Your task to perform on an android device: Open Yahoo.com Image 0: 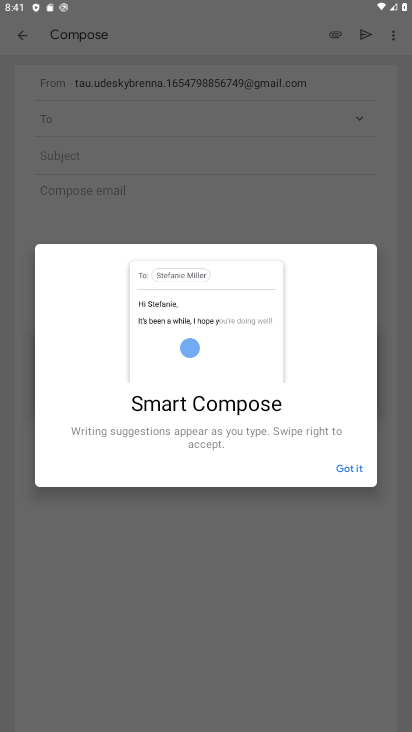
Step 0: press home button
Your task to perform on an android device: Open Yahoo.com Image 1: 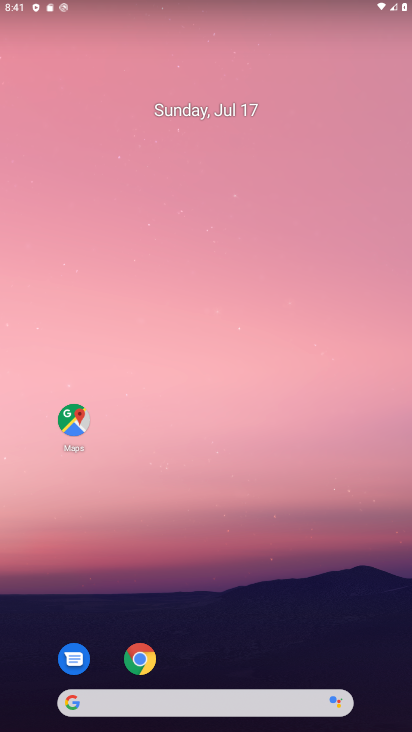
Step 1: click (138, 659)
Your task to perform on an android device: Open Yahoo.com Image 2: 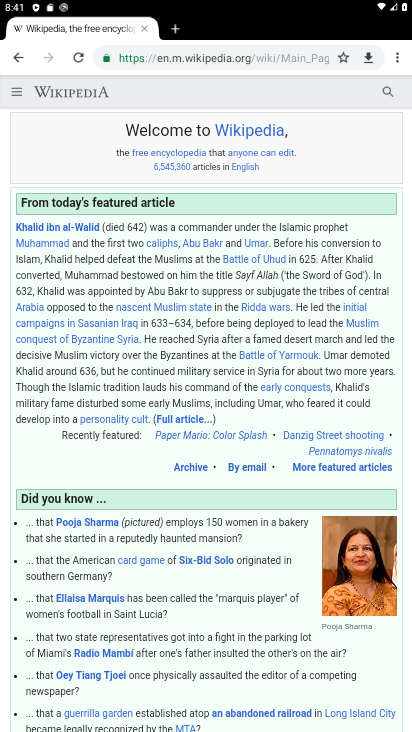
Step 2: click (255, 58)
Your task to perform on an android device: Open Yahoo.com Image 3: 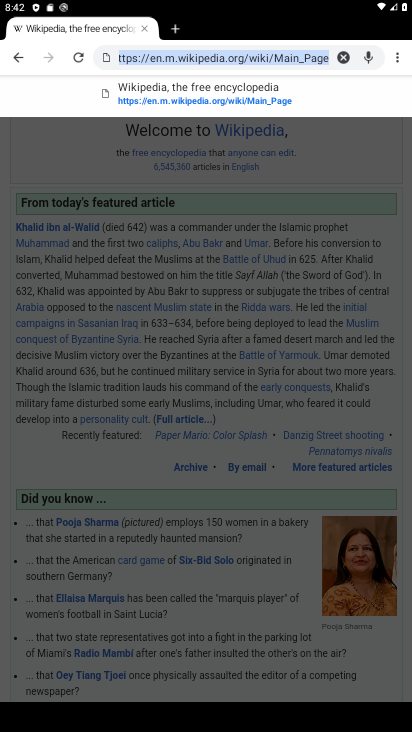
Step 3: type "Yahoo.com"
Your task to perform on an android device: Open Yahoo.com Image 4: 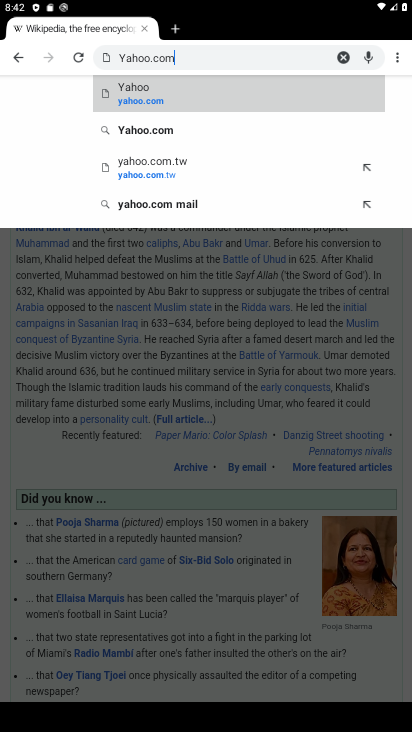
Step 4: click (161, 136)
Your task to perform on an android device: Open Yahoo.com Image 5: 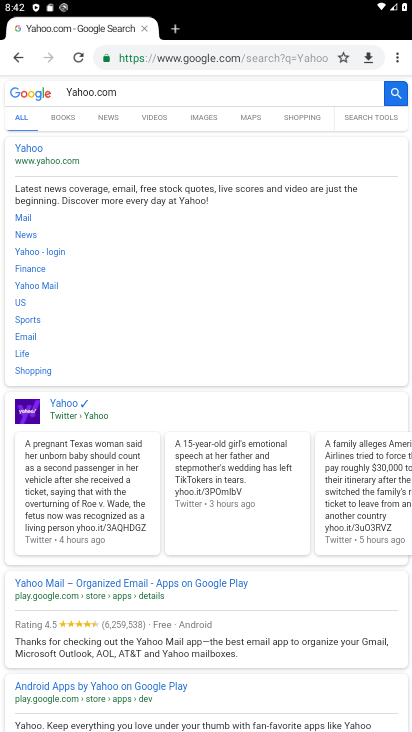
Step 5: click (39, 164)
Your task to perform on an android device: Open Yahoo.com Image 6: 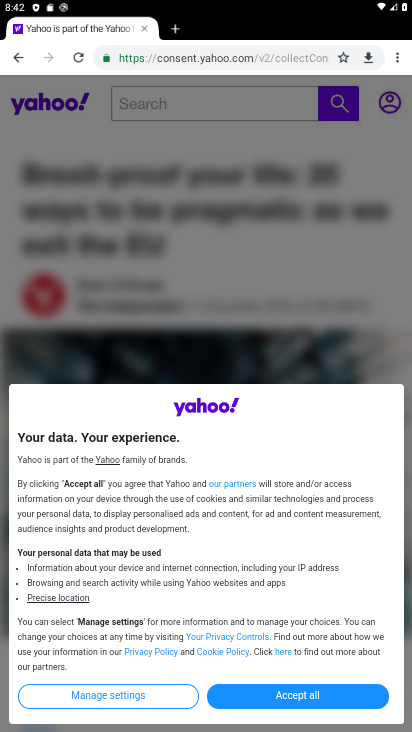
Step 6: click (300, 701)
Your task to perform on an android device: Open Yahoo.com Image 7: 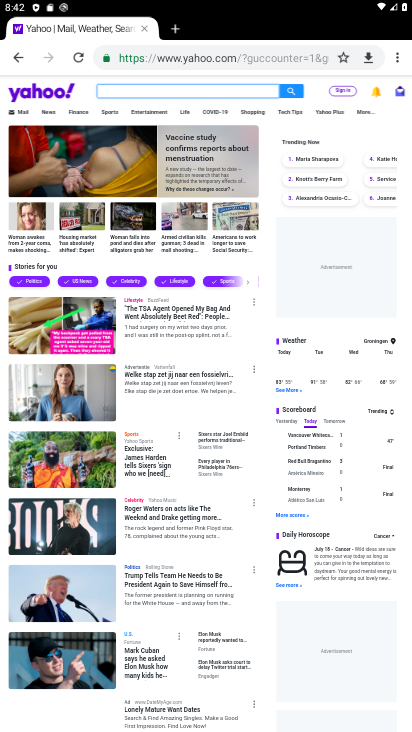
Step 7: task complete